Your task to perform on an android device: turn on data saver in the chrome app Image 0: 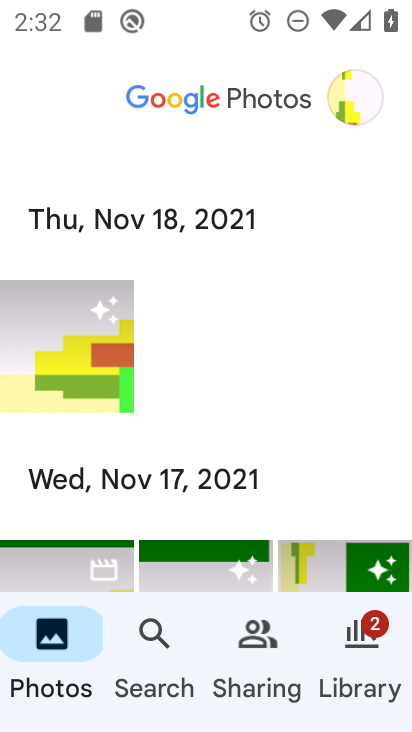
Step 0: press home button
Your task to perform on an android device: turn on data saver in the chrome app Image 1: 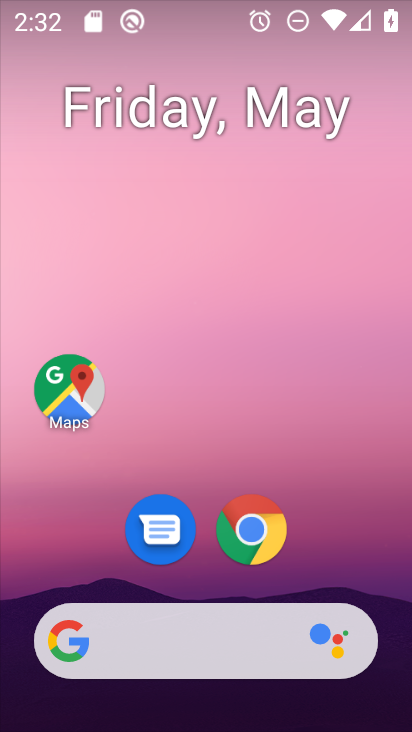
Step 1: click (250, 519)
Your task to perform on an android device: turn on data saver in the chrome app Image 2: 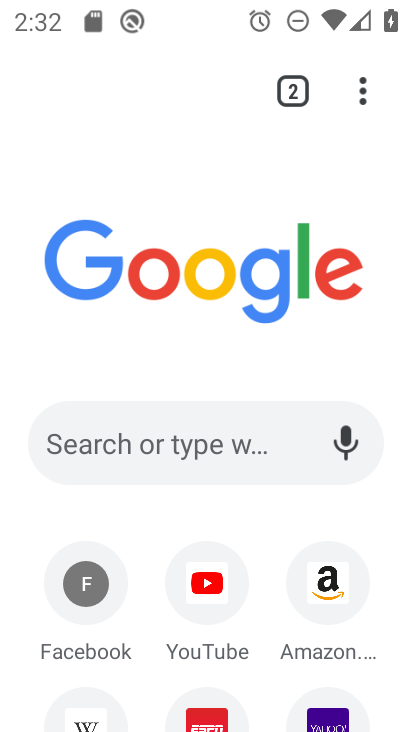
Step 2: click (360, 95)
Your task to perform on an android device: turn on data saver in the chrome app Image 3: 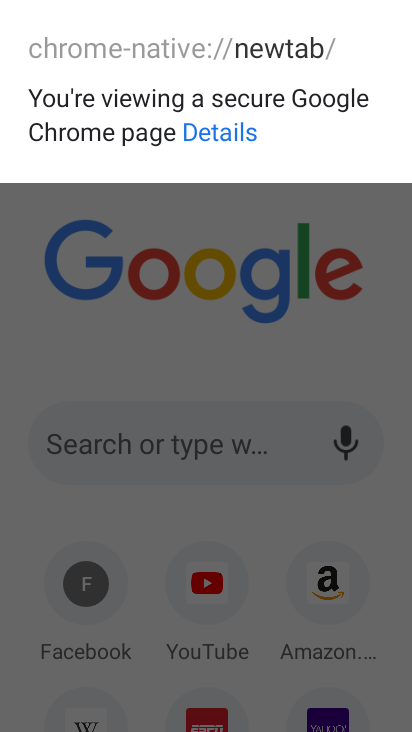
Step 3: press back button
Your task to perform on an android device: turn on data saver in the chrome app Image 4: 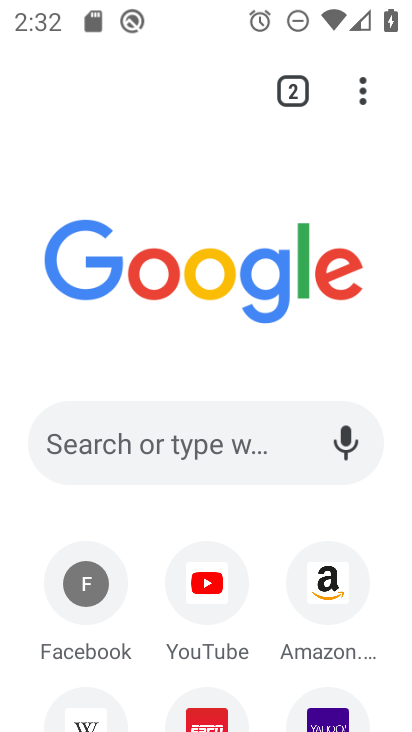
Step 4: click (363, 85)
Your task to perform on an android device: turn on data saver in the chrome app Image 5: 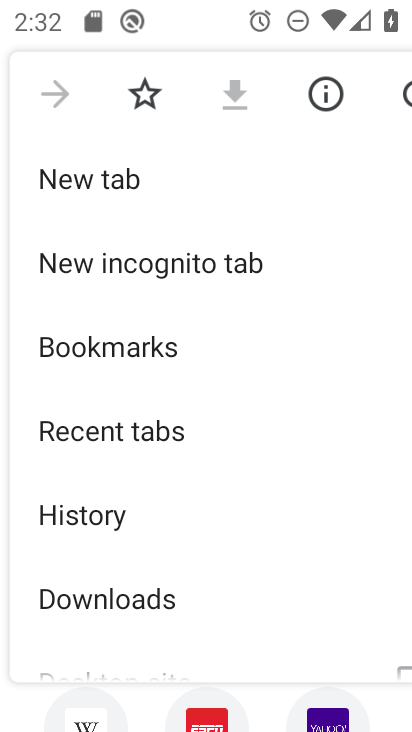
Step 5: drag from (267, 633) to (285, 375)
Your task to perform on an android device: turn on data saver in the chrome app Image 6: 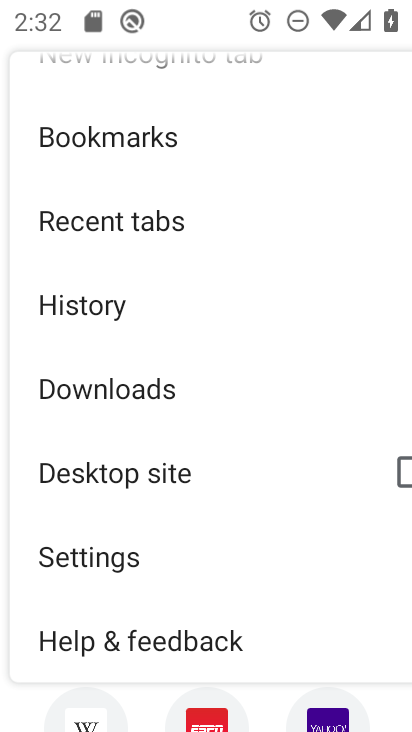
Step 6: click (105, 557)
Your task to perform on an android device: turn on data saver in the chrome app Image 7: 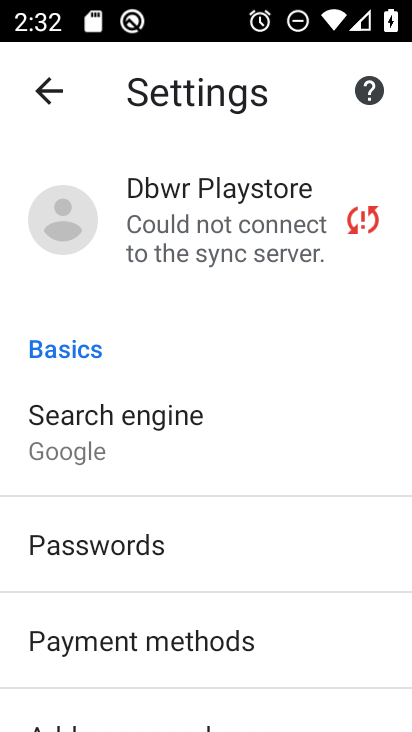
Step 7: drag from (277, 694) to (269, 367)
Your task to perform on an android device: turn on data saver in the chrome app Image 8: 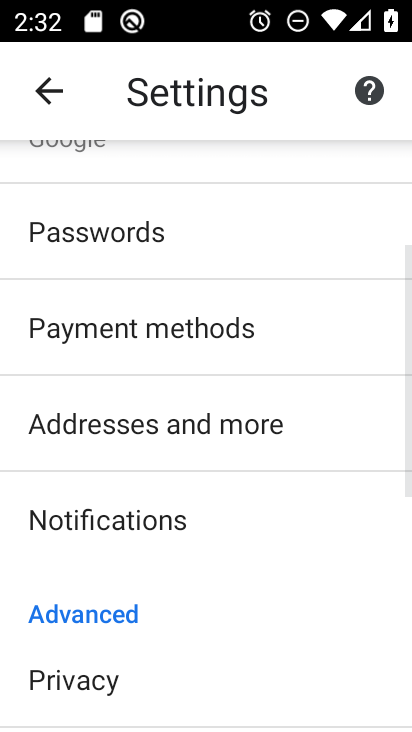
Step 8: drag from (264, 681) to (284, 294)
Your task to perform on an android device: turn on data saver in the chrome app Image 9: 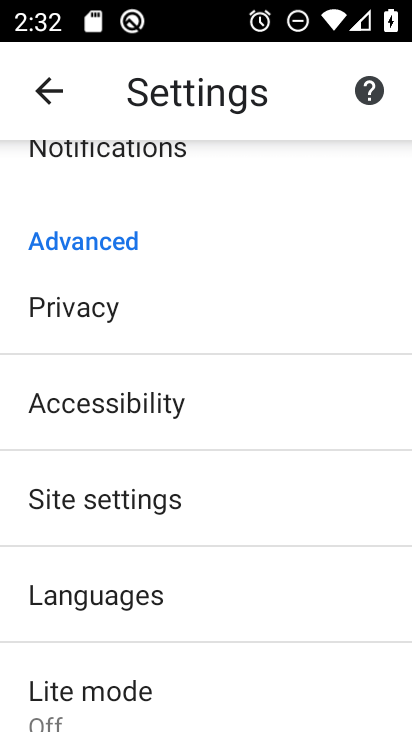
Step 9: click (117, 687)
Your task to perform on an android device: turn on data saver in the chrome app Image 10: 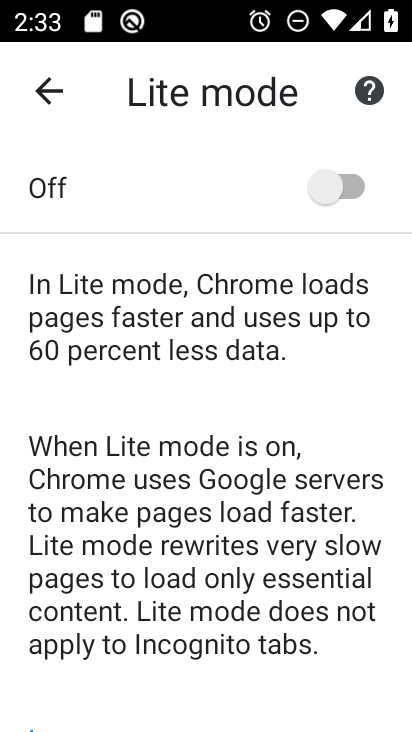
Step 10: click (362, 192)
Your task to perform on an android device: turn on data saver in the chrome app Image 11: 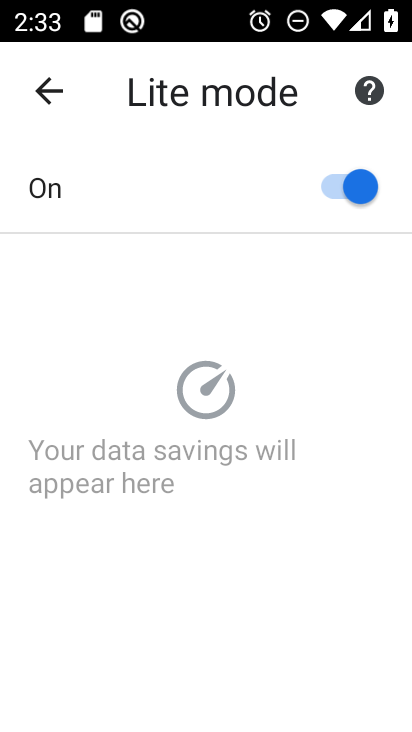
Step 11: task complete